Your task to perform on an android device: add a label to a message in the gmail app Image 0: 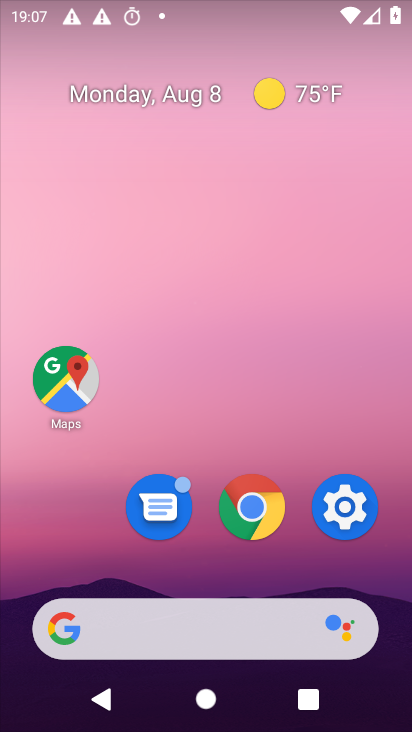
Step 0: drag from (243, 652) to (274, 115)
Your task to perform on an android device: add a label to a message in the gmail app Image 1: 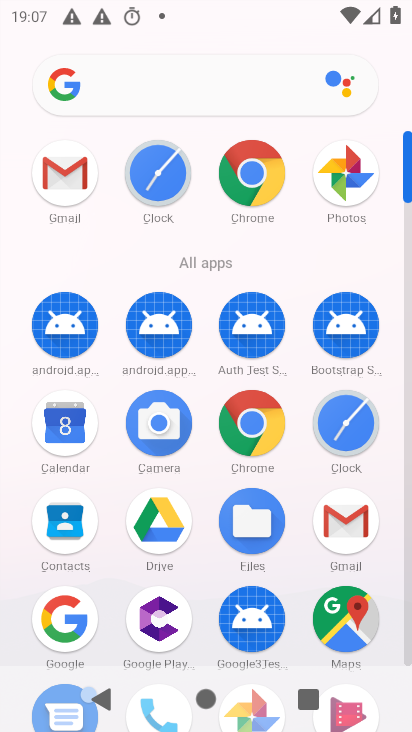
Step 1: click (72, 193)
Your task to perform on an android device: add a label to a message in the gmail app Image 2: 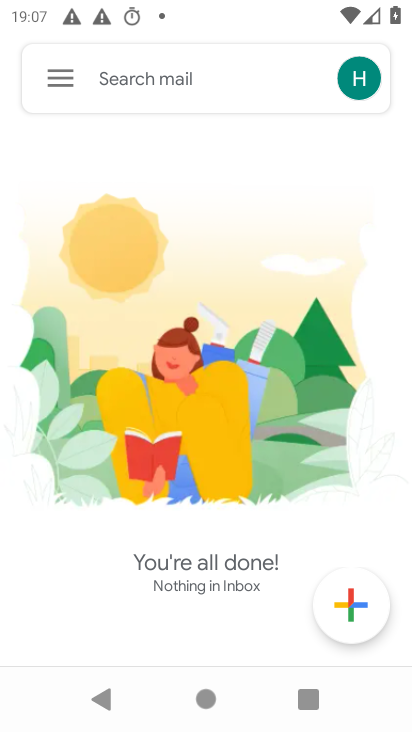
Step 2: click (45, 76)
Your task to perform on an android device: add a label to a message in the gmail app Image 3: 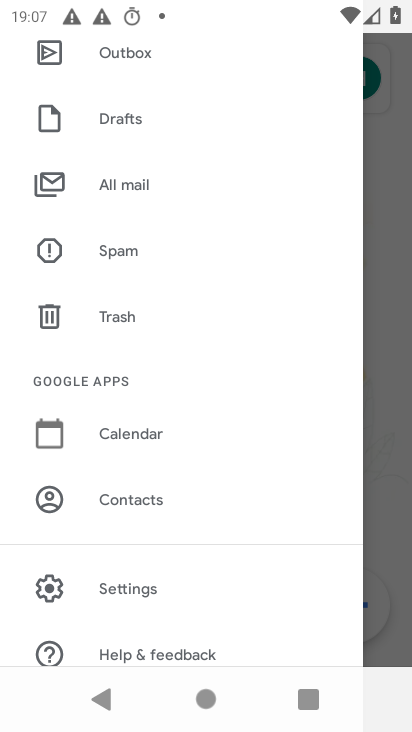
Step 3: click (147, 593)
Your task to perform on an android device: add a label to a message in the gmail app Image 4: 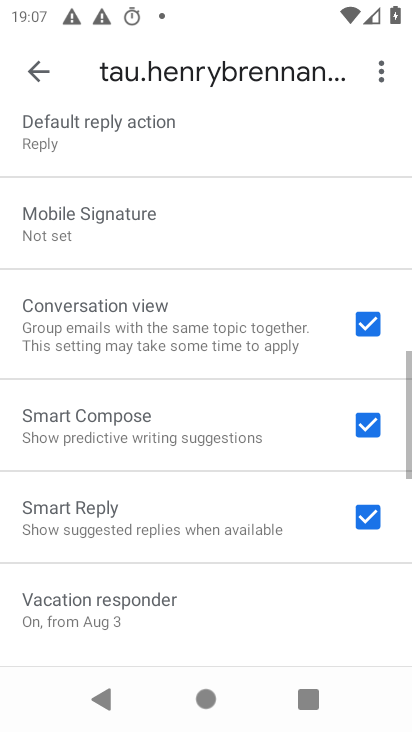
Step 4: drag from (142, 230) to (187, 653)
Your task to perform on an android device: add a label to a message in the gmail app Image 5: 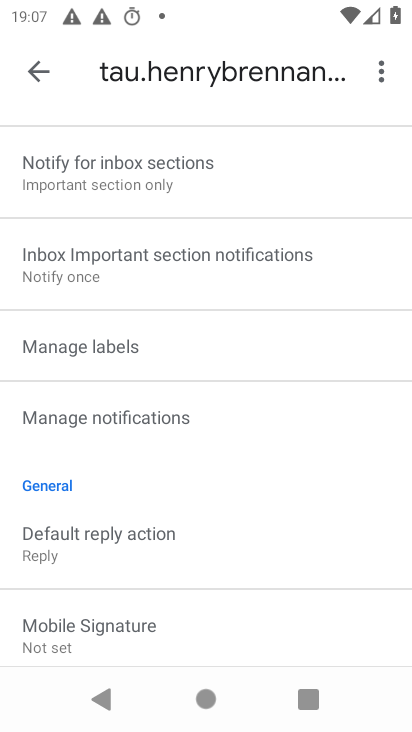
Step 5: click (164, 340)
Your task to perform on an android device: add a label to a message in the gmail app Image 6: 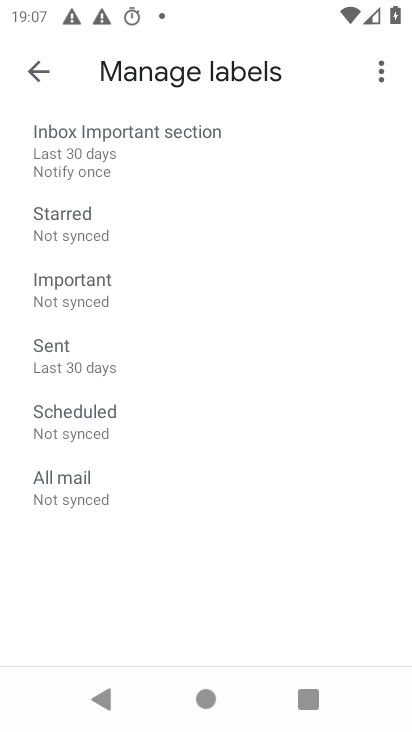
Step 6: click (126, 132)
Your task to perform on an android device: add a label to a message in the gmail app Image 7: 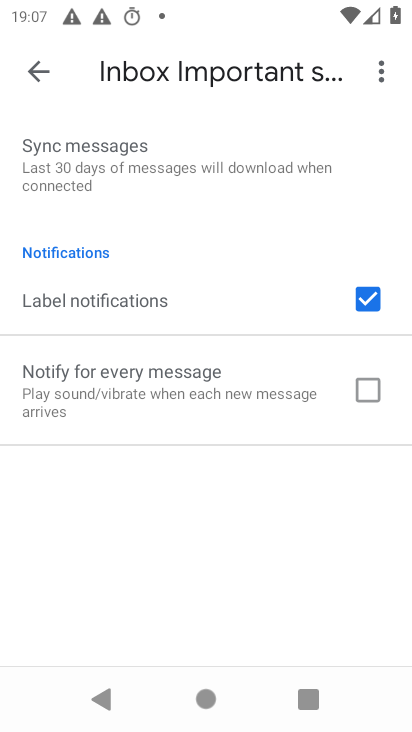
Step 7: click (371, 385)
Your task to perform on an android device: add a label to a message in the gmail app Image 8: 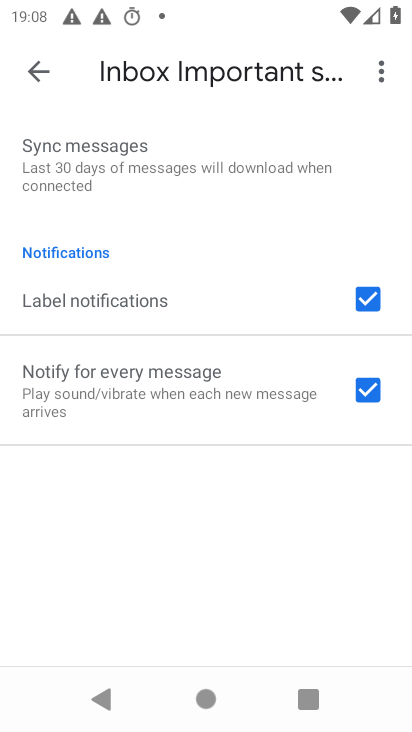
Step 8: task complete